Your task to perform on an android device: What's the weather going to be this weekend? Image 0: 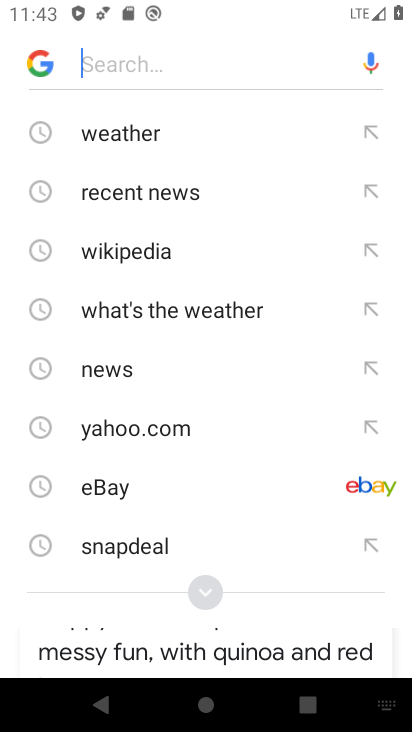
Step 0: press home button
Your task to perform on an android device: What's the weather going to be this weekend? Image 1: 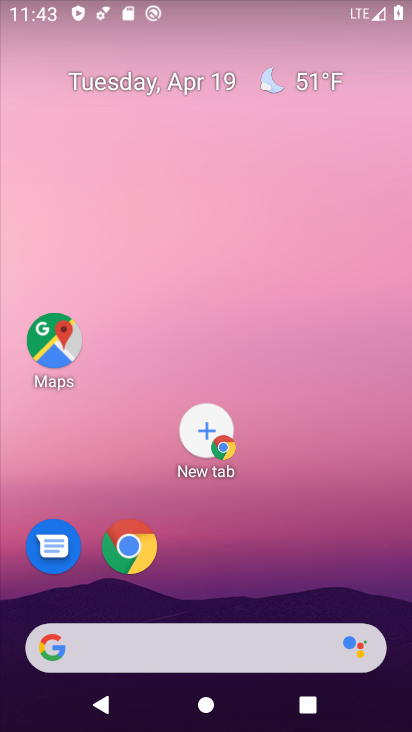
Step 1: click (180, 642)
Your task to perform on an android device: What's the weather going to be this weekend? Image 2: 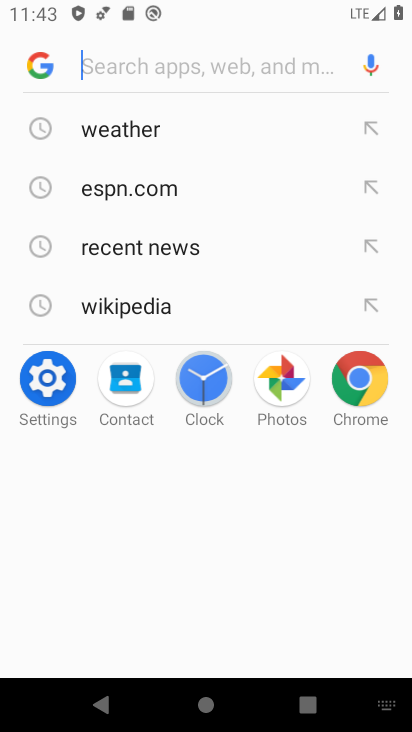
Step 2: click (162, 145)
Your task to perform on an android device: What's the weather going to be this weekend? Image 3: 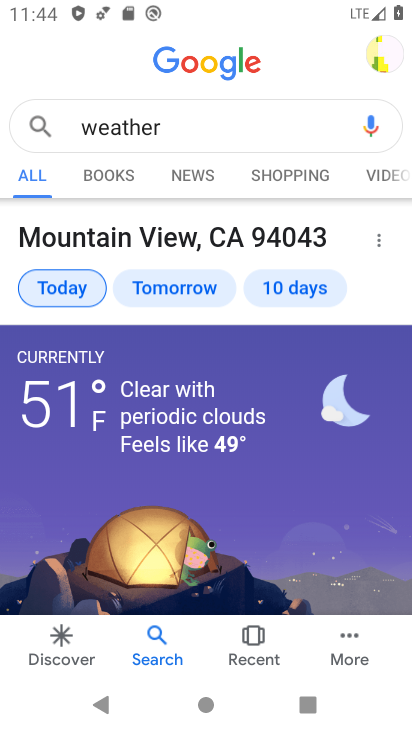
Step 3: click (272, 295)
Your task to perform on an android device: What's the weather going to be this weekend? Image 4: 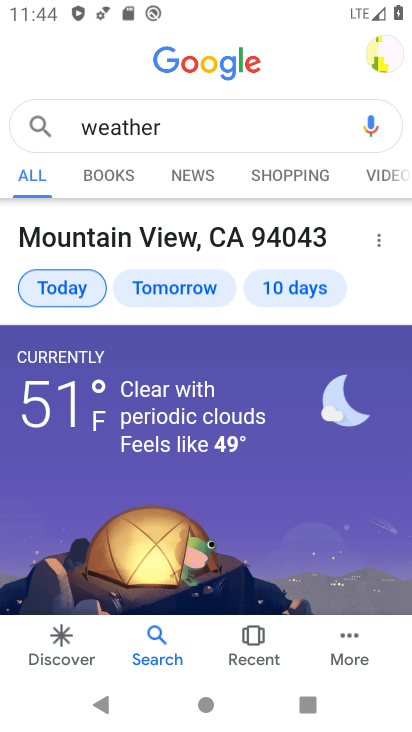
Step 4: click (272, 295)
Your task to perform on an android device: What's the weather going to be this weekend? Image 5: 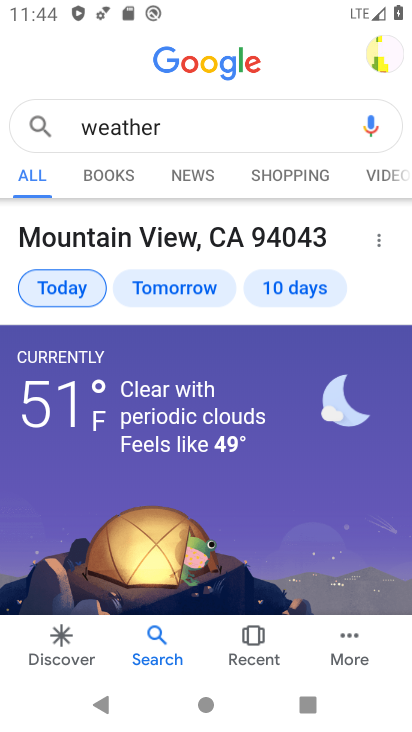
Step 5: click (272, 295)
Your task to perform on an android device: What's the weather going to be this weekend? Image 6: 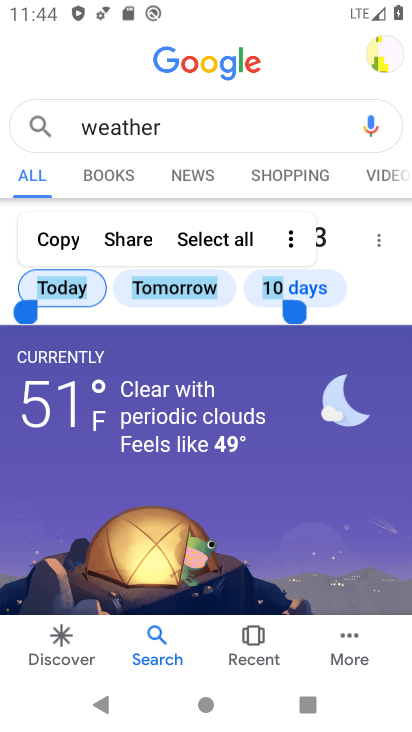
Step 6: click (272, 295)
Your task to perform on an android device: What's the weather going to be this weekend? Image 7: 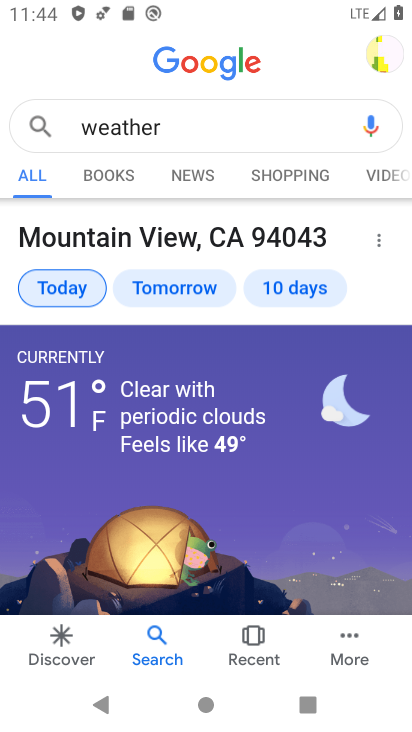
Step 7: drag from (288, 558) to (278, 165)
Your task to perform on an android device: What's the weather going to be this weekend? Image 8: 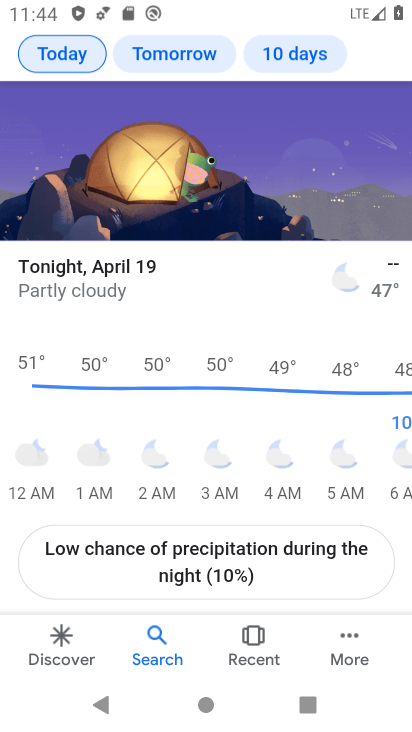
Step 8: click (122, 270)
Your task to perform on an android device: What's the weather going to be this weekend? Image 9: 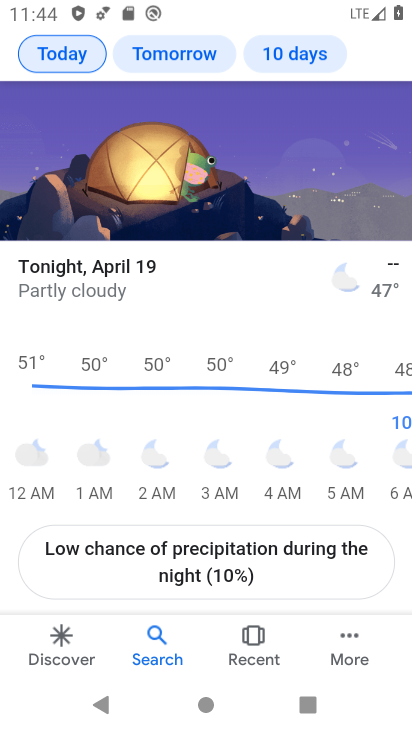
Step 9: drag from (178, 492) to (146, 238)
Your task to perform on an android device: What's the weather going to be this weekend? Image 10: 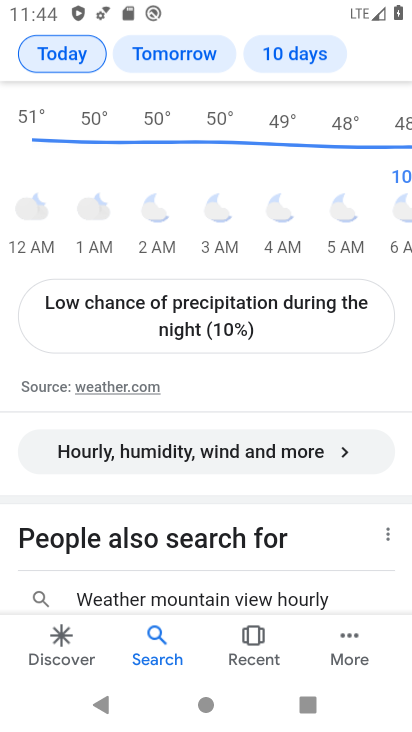
Step 10: click (264, 452)
Your task to perform on an android device: What's the weather going to be this weekend? Image 11: 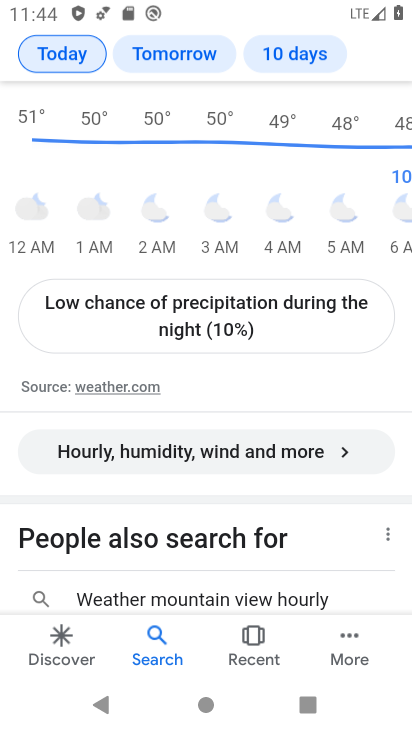
Step 11: click (126, 384)
Your task to perform on an android device: What's the weather going to be this weekend? Image 12: 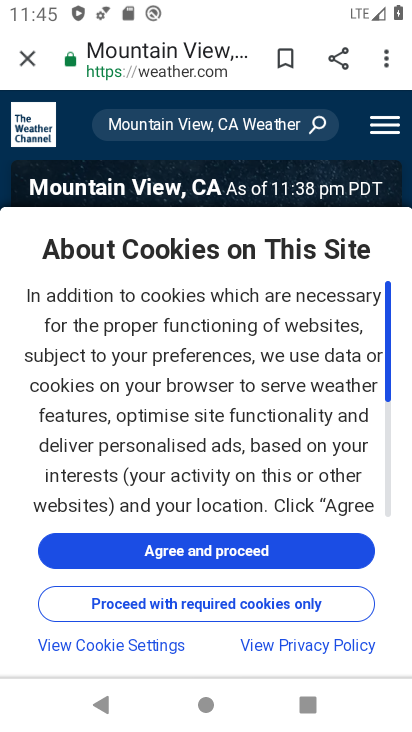
Step 12: click (174, 547)
Your task to perform on an android device: What's the weather going to be this weekend? Image 13: 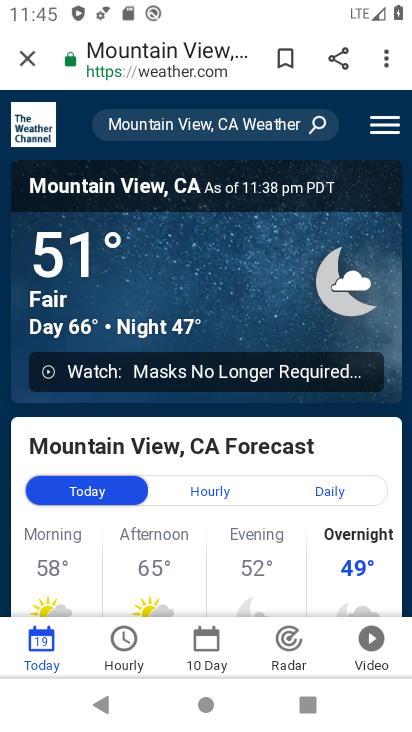
Step 13: drag from (231, 457) to (221, 199)
Your task to perform on an android device: What's the weather going to be this weekend? Image 14: 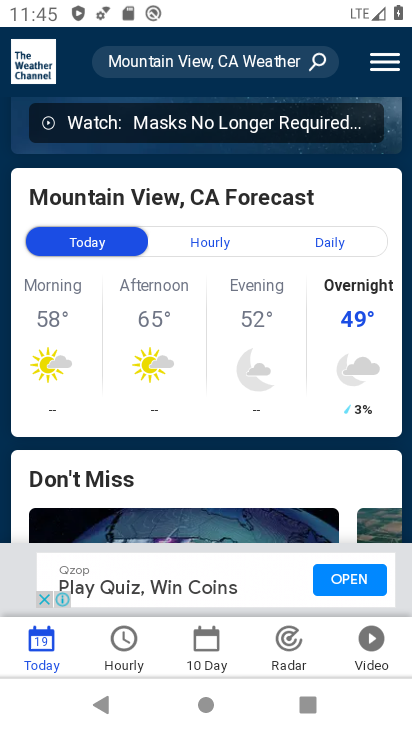
Step 14: click (370, 61)
Your task to perform on an android device: What's the weather going to be this weekend? Image 15: 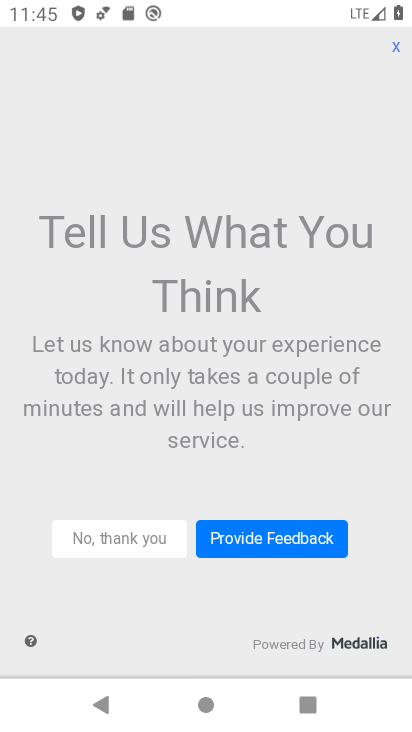
Step 15: press back button
Your task to perform on an android device: What's the weather going to be this weekend? Image 16: 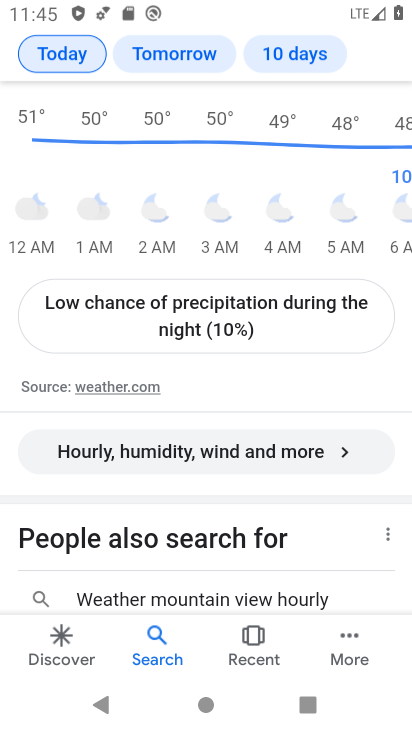
Step 16: click (143, 391)
Your task to perform on an android device: What's the weather going to be this weekend? Image 17: 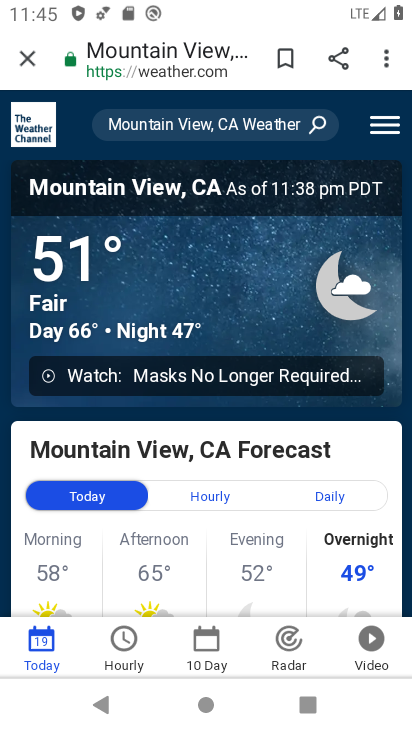
Step 17: click (221, 650)
Your task to perform on an android device: What's the weather going to be this weekend? Image 18: 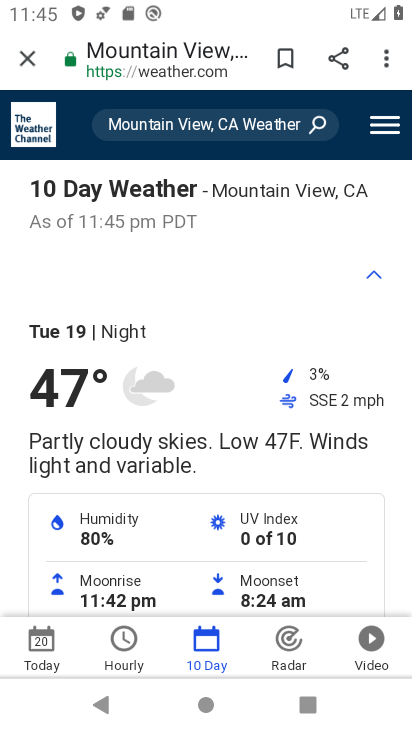
Step 18: drag from (222, 550) to (226, 180)
Your task to perform on an android device: What's the weather going to be this weekend? Image 19: 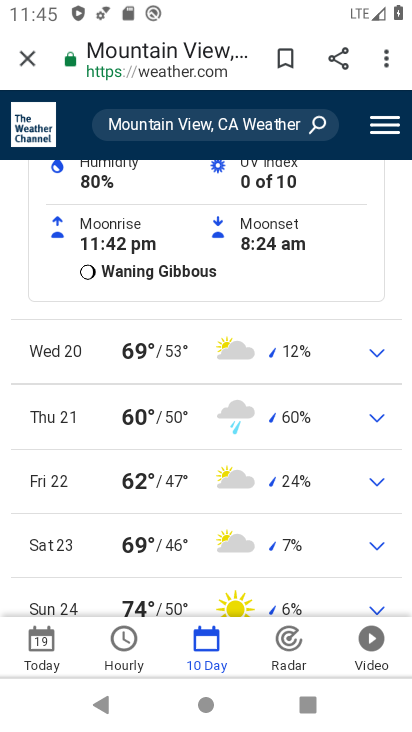
Step 19: drag from (237, 438) to (232, 198)
Your task to perform on an android device: What's the weather going to be this weekend? Image 20: 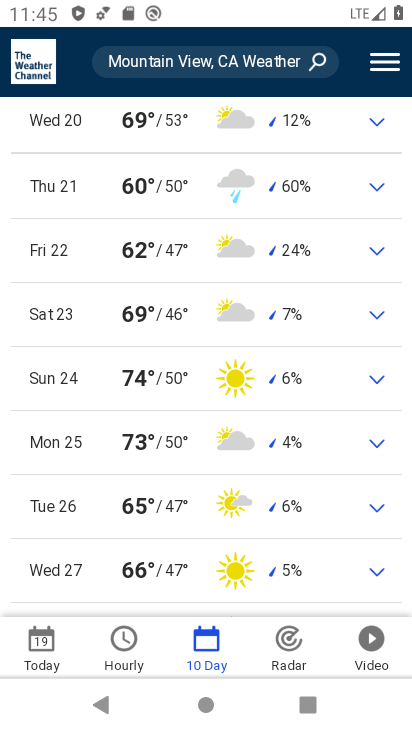
Step 20: click (87, 332)
Your task to perform on an android device: What's the weather going to be this weekend? Image 21: 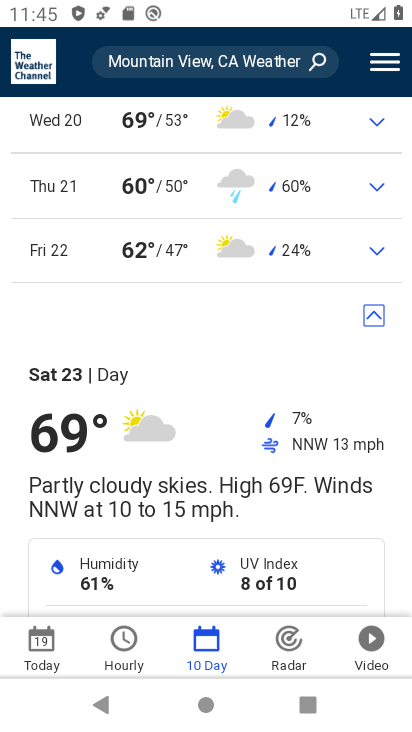
Step 21: task complete